Your task to perform on an android device: Search for Italian restaurants on Maps Image 0: 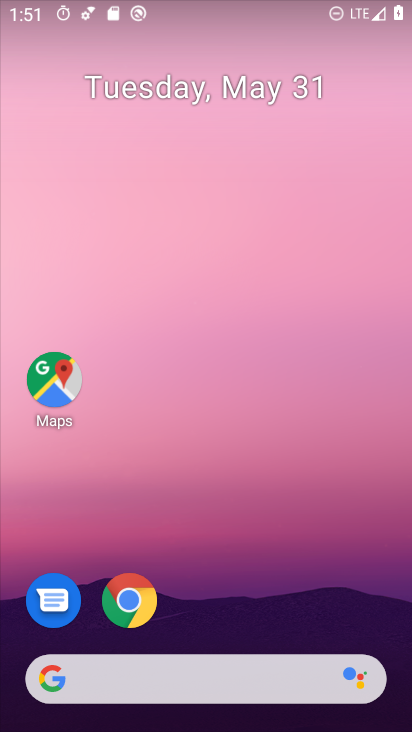
Step 0: drag from (200, 698) to (194, 350)
Your task to perform on an android device: Search for Italian restaurants on Maps Image 1: 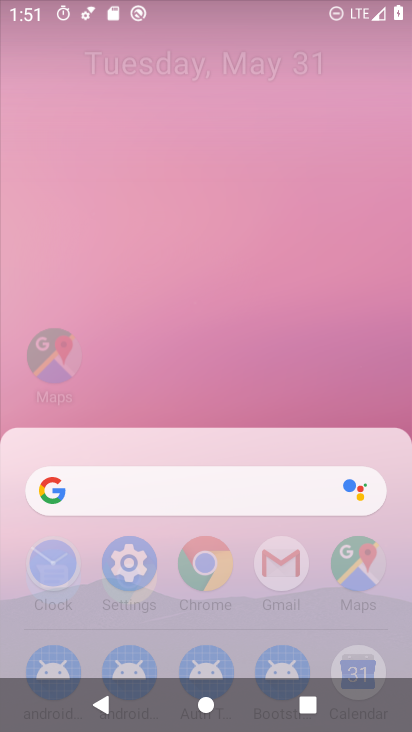
Step 1: drag from (196, 108) to (197, 63)
Your task to perform on an android device: Search for Italian restaurants on Maps Image 2: 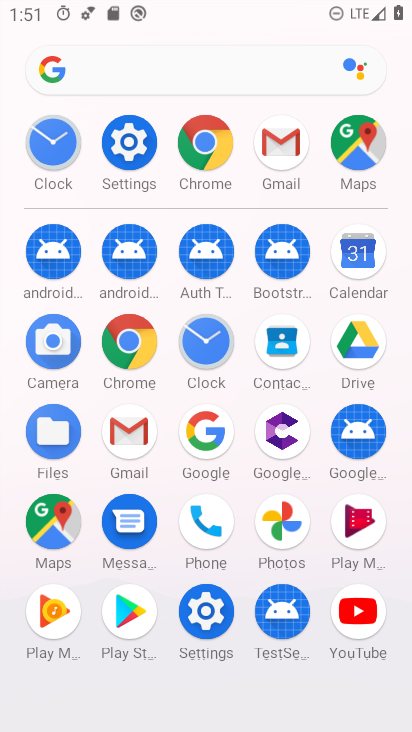
Step 2: click (51, 522)
Your task to perform on an android device: Search for Italian restaurants on Maps Image 3: 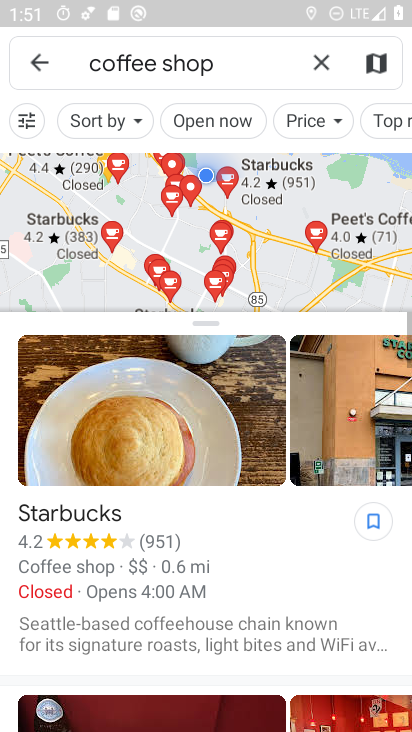
Step 3: click (321, 58)
Your task to perform on an android device: Search for Italian restaurants on Maps Image 4: 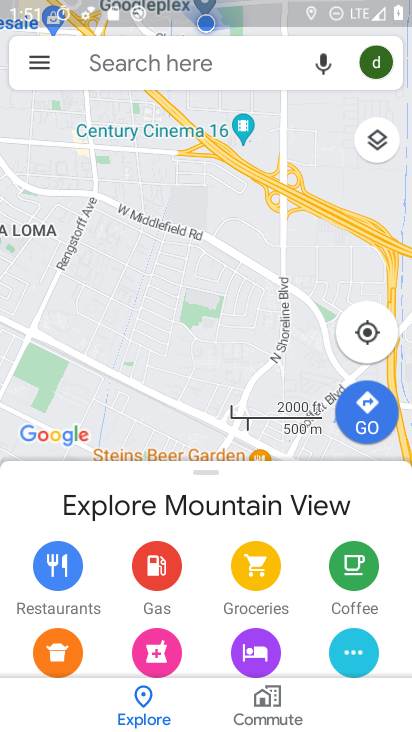
Step 4: click (191, 69)
Your task to perform on an android device: Search for Italian restaurants on Maps Image 5: 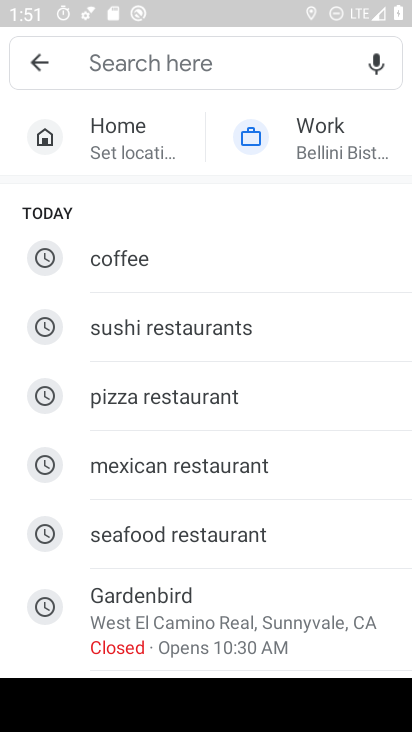
Step 5: type "Italian restaurants"
Your task to perform on an android device: Search for Italian restaurants on Maps Image 6: 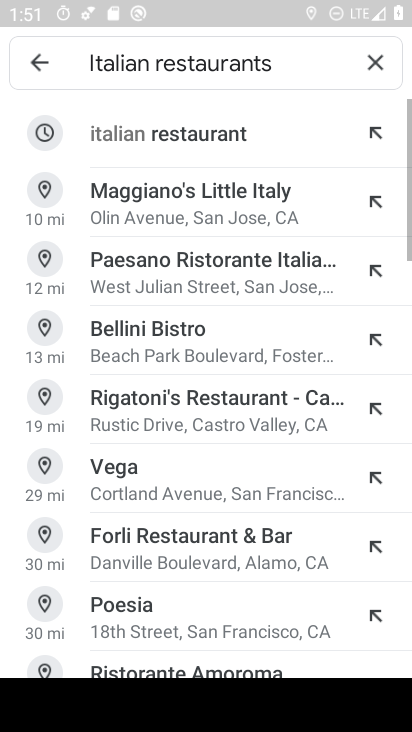
Step 6: click (173, 129)
Your task to perform on an android device: Search for Italian restaurants on Maps Image 7: 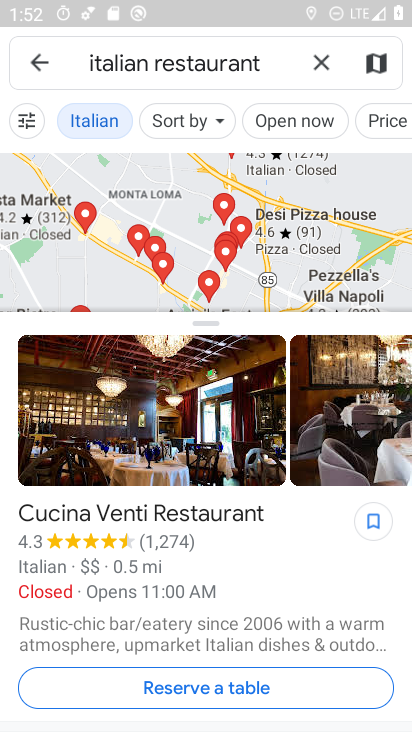
Step 7: task complete